Your task to perform on an android device: Open Amazon Image 0: 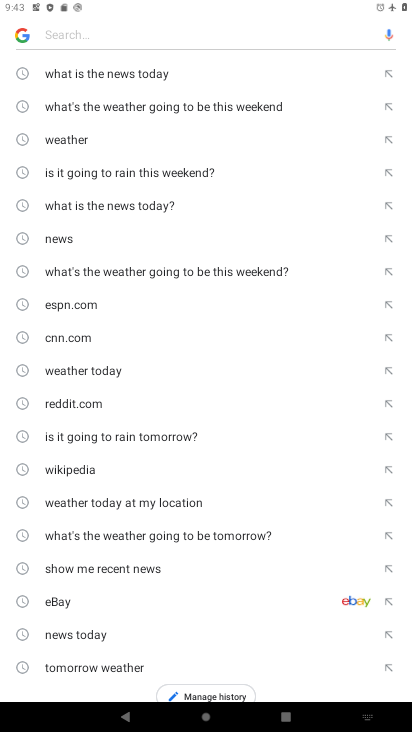
Step 0: press home button
Your task to perform on an android device: Open Amazon Image 1: 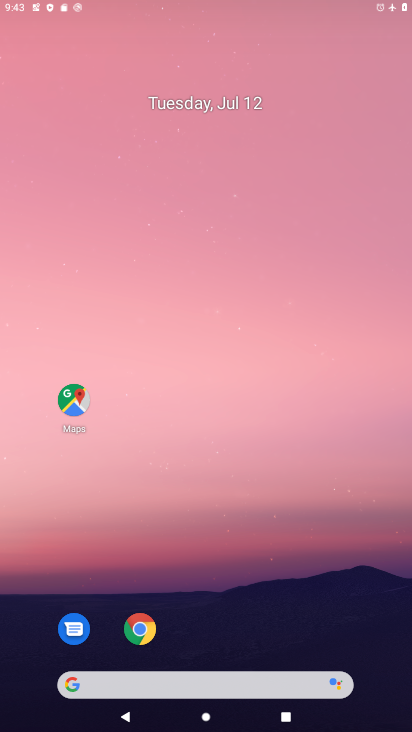
Step 1: drag from (205, 643) to (198, 416)
Your task to perform on an android device: Open Amazon Image 2: 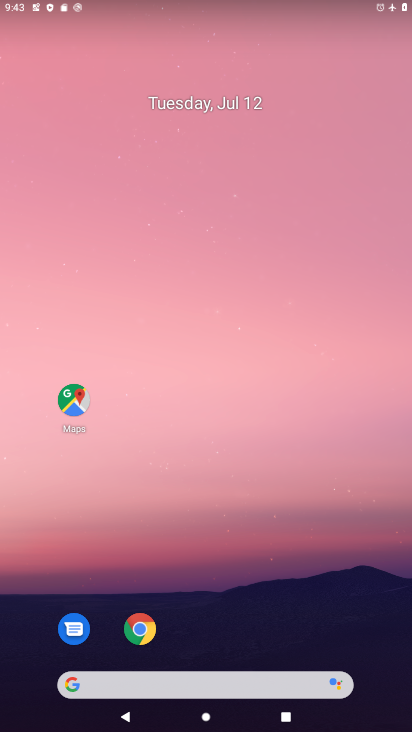
Step 2: drag from (192, 616) to (194, 580)
Your task to perform on an android device: Open Amazon Image 3: 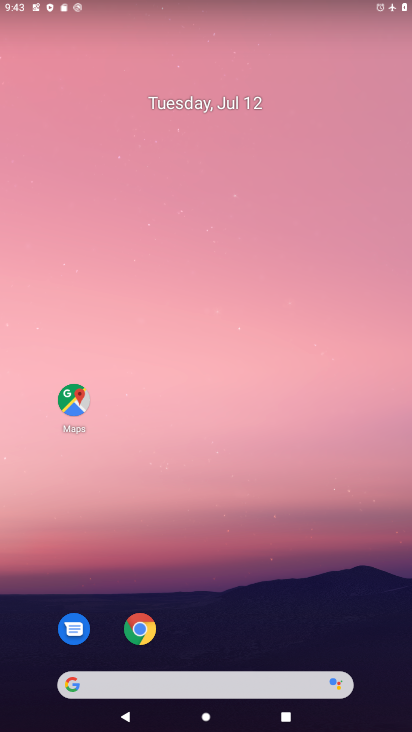
Step 3: drag from (218, 619) to (208, 389)
Your task to perform on an android device: Open Amazon Image 4: 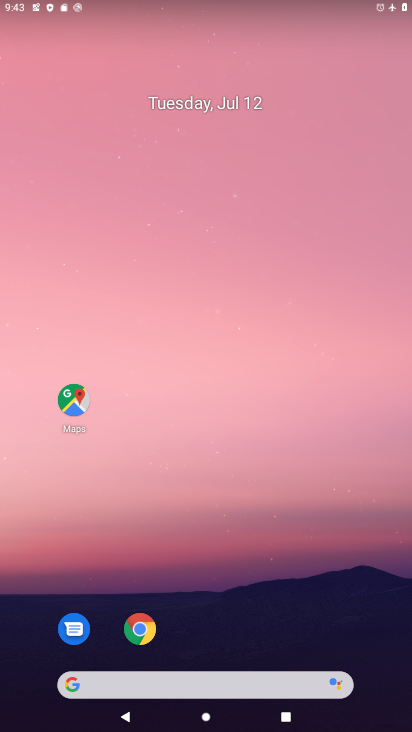
Step 4: drag from (234, 641) to (206, 36)
Your task to perform on an android device: Open Amazon Image 5: 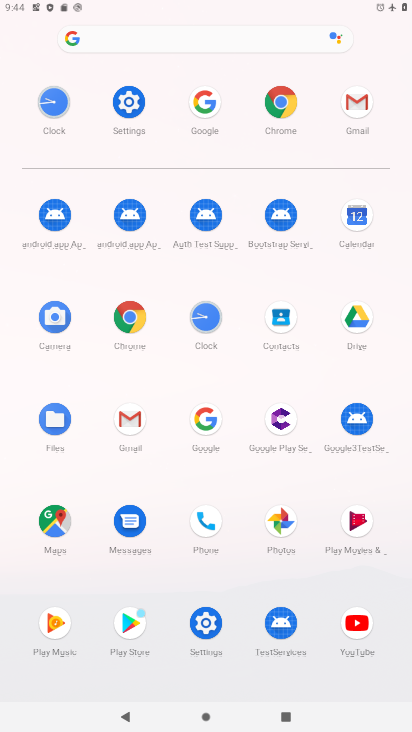
Step 5: click (269, 95)
Your task to perform on an android device: Open Amazon Image 6: 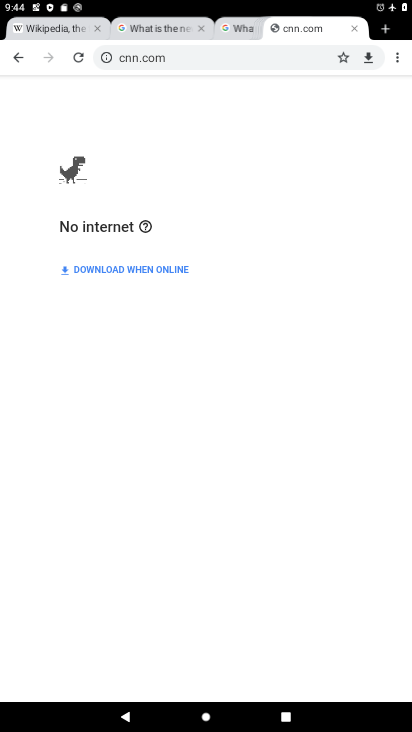
Step 6: click (352, 25)
Your task to perform on an android device: Open Amazon Image 7: 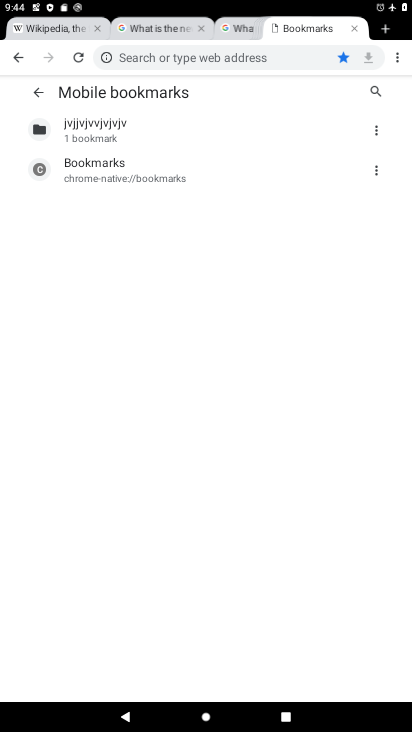
Step 7: click (388, 26)
Your task to perform on an android device: Open Amazon Image 8: 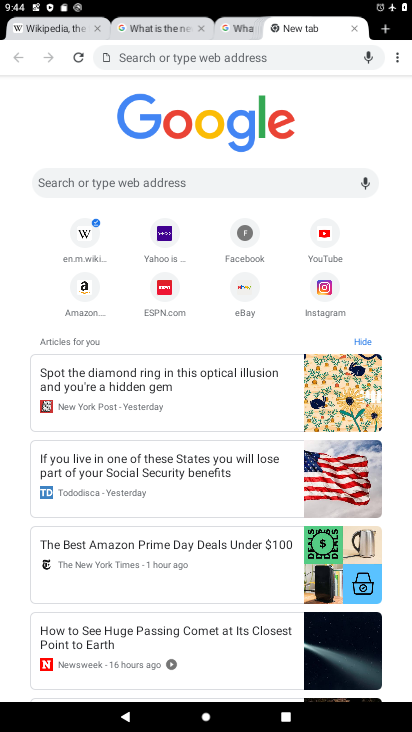
Step 8: click (83, 288)
Your task to perform on an android device: Open Amazon Image 9: 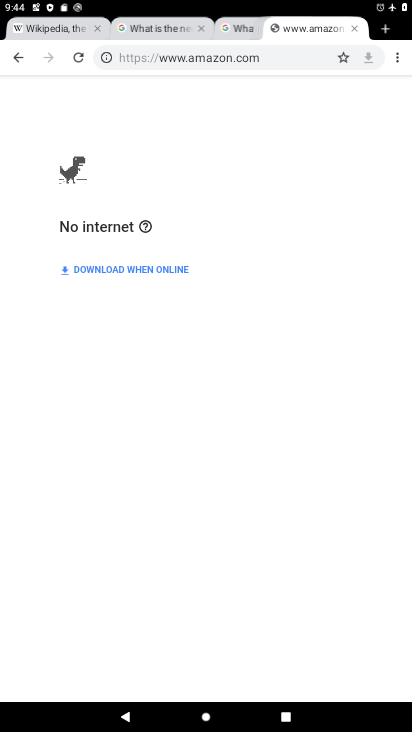
Step 9: task complete